Your task to perform on an android device: turn off notifications in google photos Image 0: 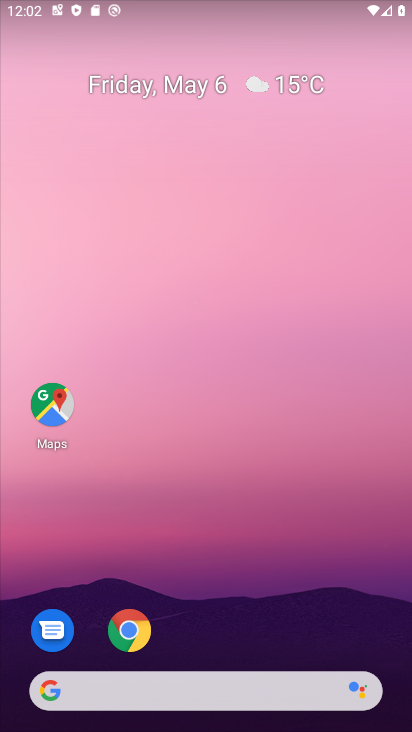
Step 0: drag from (333, 572) to (243, 105)
Your task to perform on an android device: turn off notifications in google photos Image 1: 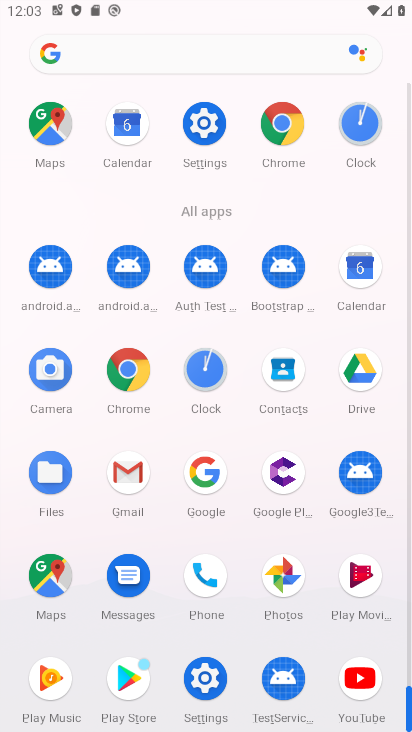
Step 1: click (292, 570)
Your task to perform on an android device: turn off notifications in google photos Image 2: 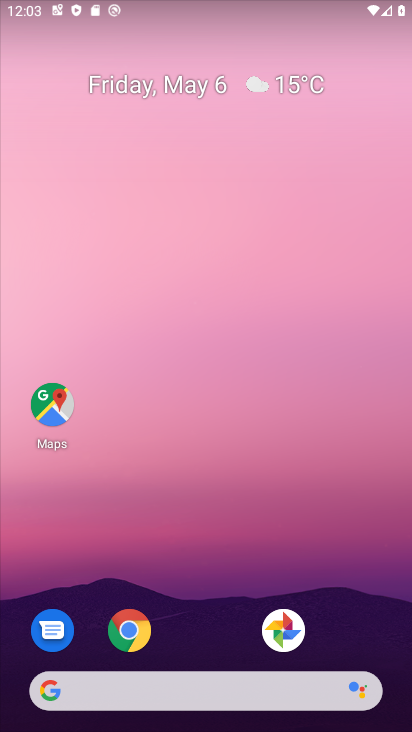
Step 2: click (276, 624)
Your task to perform on an android device: turn off notifications in google photos Image 3: 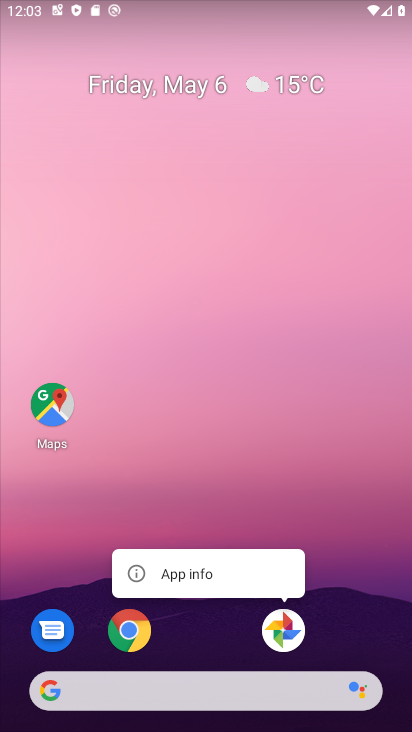
Step 3: click (245, 583)
Your task to perform on an android device: turn off notifications in google photos Image 4: 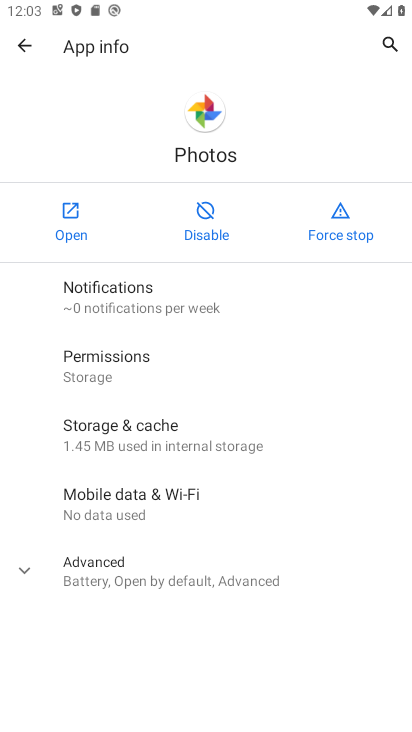
Step 4: click (177, 284)
Your task to perform on an android device: turn off notifications in google photos Image 5: 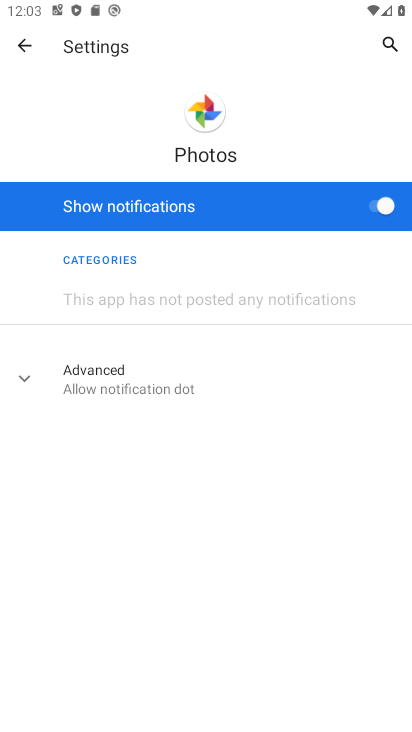
Step 5: click (381, 211)
Your task to perform on an android device: turn off notifications in google photos Image 6: 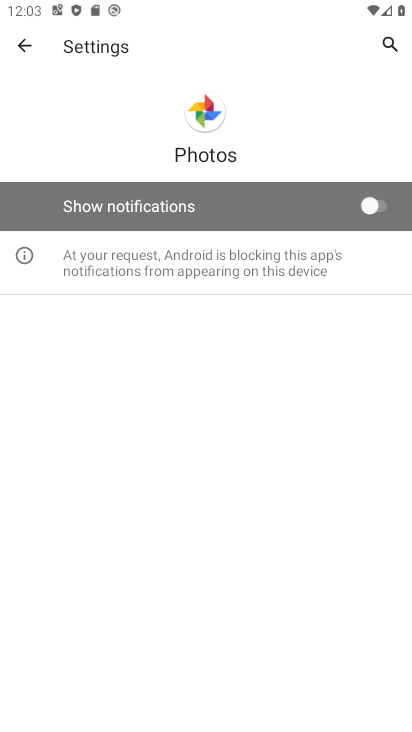
Step 6: task complete